Your task to perform on an android device: Open eBay Image 0: 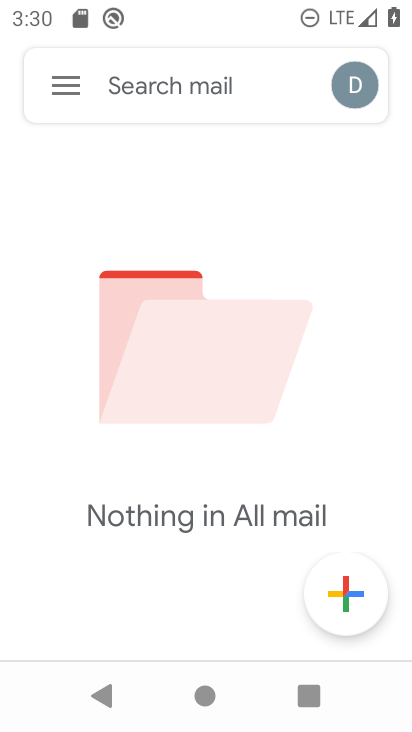
Step 0: press back button
Your task to perform on an android device: Open eBay Image 1: 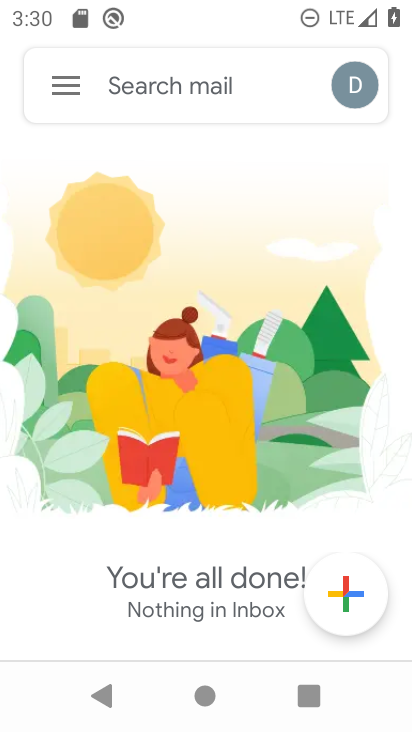
Step 1: press back button
Your task to perform on an android device: Open eBay Image 2: 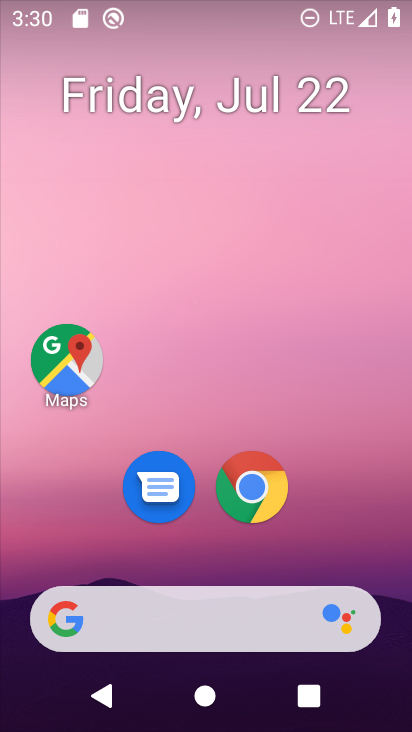
Step 2: click (251, 479)
Your task to perform on an android device: Open eBay Image 3: 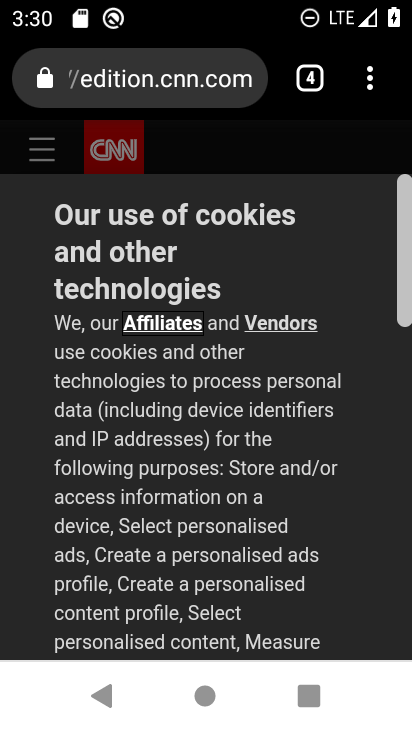
Step 3: click (304, 72)
Your task to perform on an android device: Open eBay Image 4: 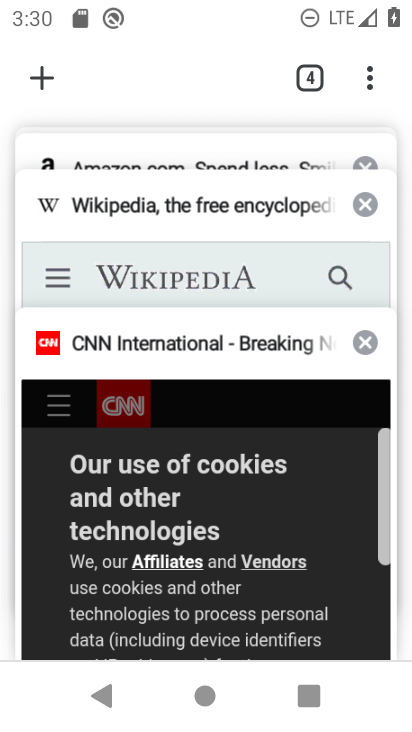
Step 4: click (50, 74)
Your task to perform on an android device: Open eBay Image 5: 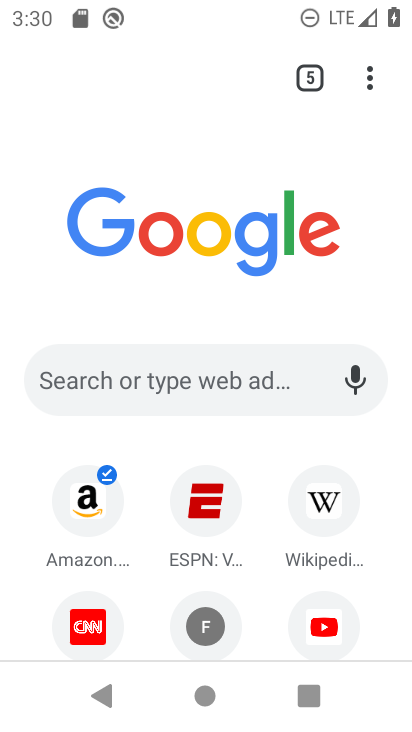
Step 5: drag from (208, 546) to (204, 497)
Your task to perform on an android device: Open eBay Image 6: 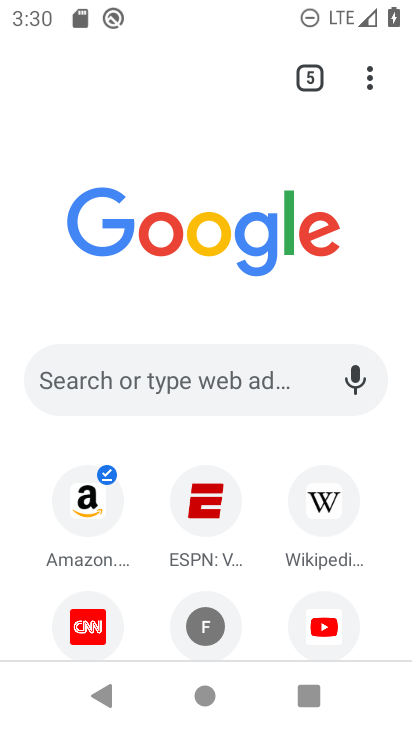
Step 6: click (131, 386)
Your task to perform on an android device: Open eBay Image 7: 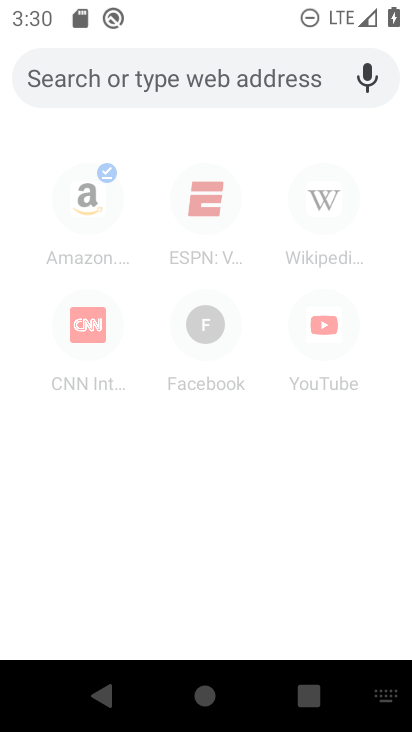
Step 7: type "ebay"
Your task to perform on an android device: Open eBay Image 8: 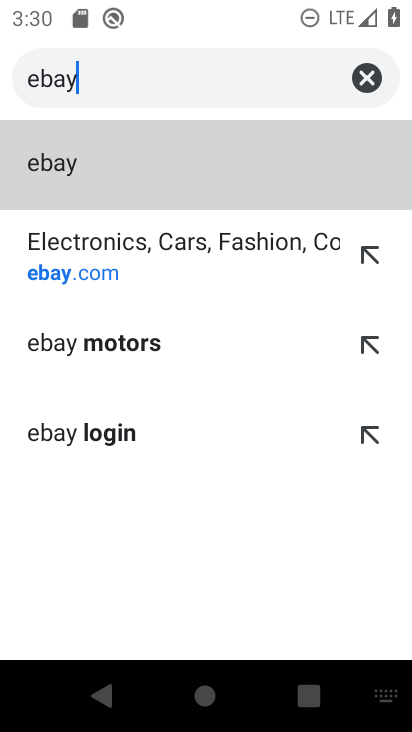
Step 8: click (114, 260)
Your task to perform on an android device: Open eBay Image 9: 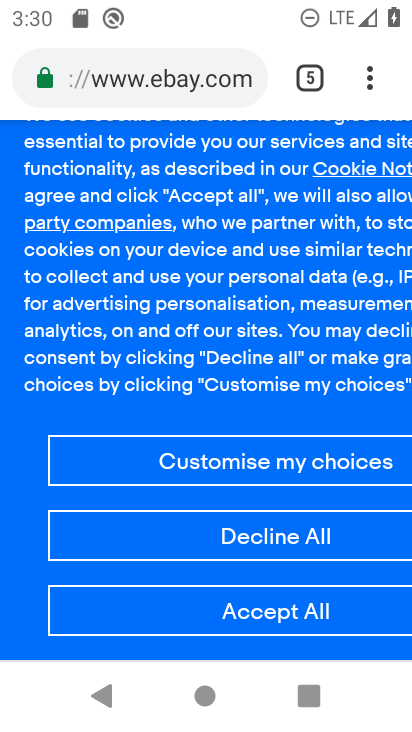
Step 9: task complete